Your task to perform on an android device: Open battery settings Image 0: 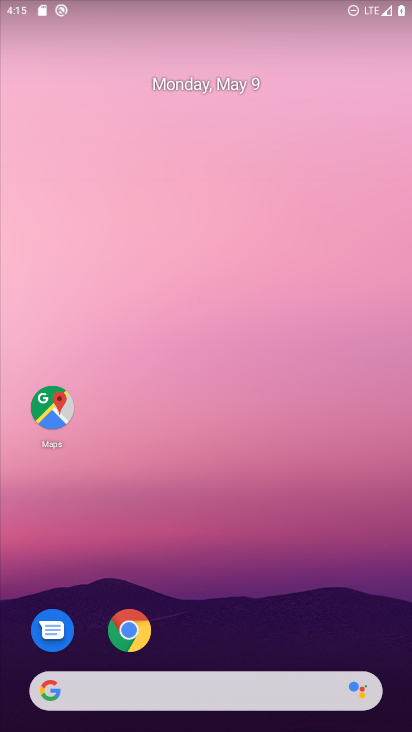
Step 0: click (370, 204)
Your task to perform on an android device: Open battery settings Image 1: 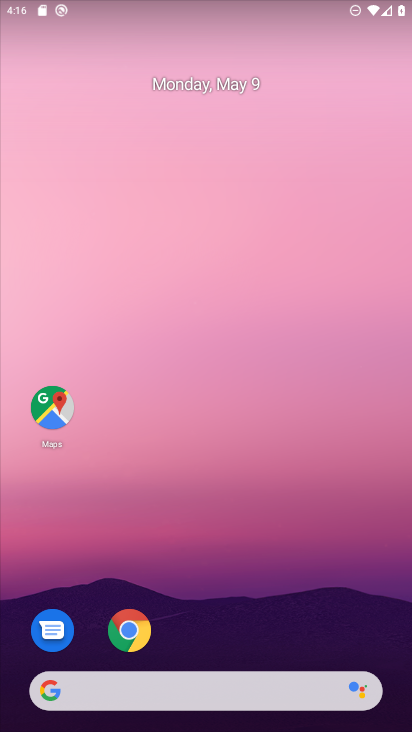
Step 1: click (276, 80)
Your task to perform on an android device: Open battery settings Image 2: 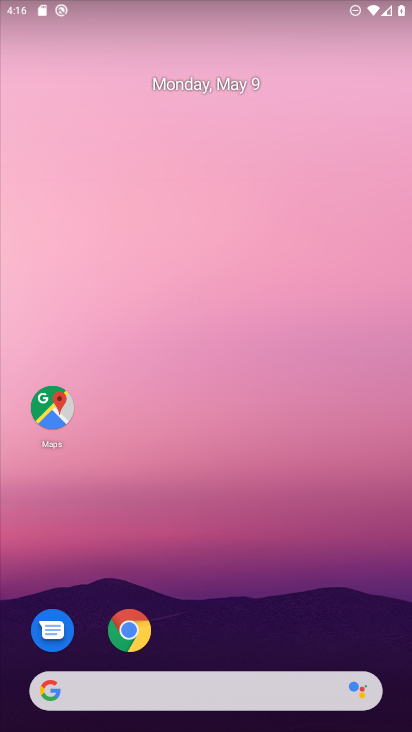
Step 2: drag from (236, 278) to (204, 56)
Your task to perform on an android device: Open battery settings Image 3: 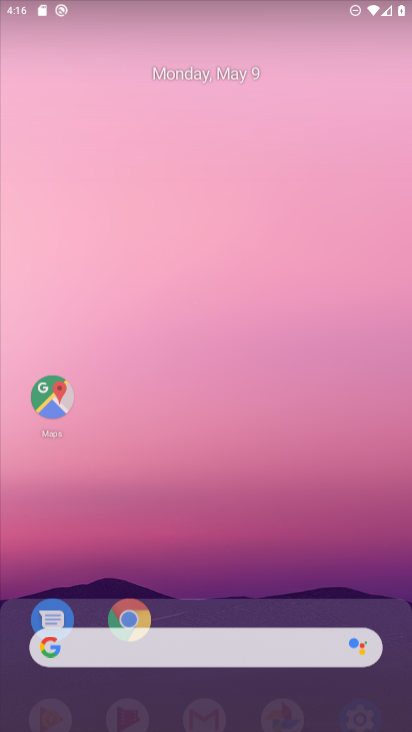
Step 3: drag from (276, 536) to (194, 114)
Your task to perform on an android device: Open battery settings Image 4: 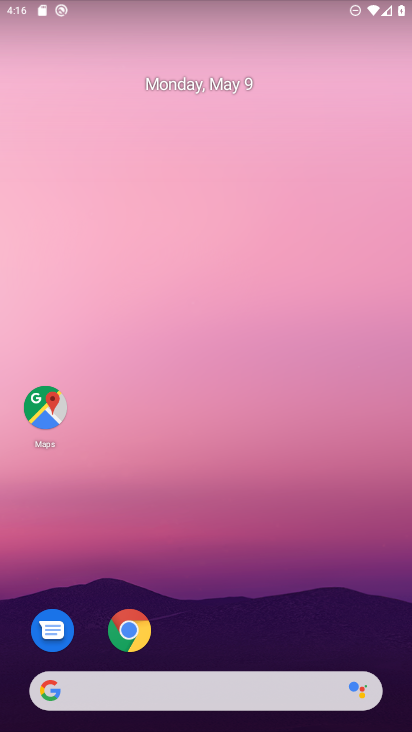
Step 4: drag from (259, 556) to (172, 11)
Your task to perform on an android device: Open battery settings Image 5: 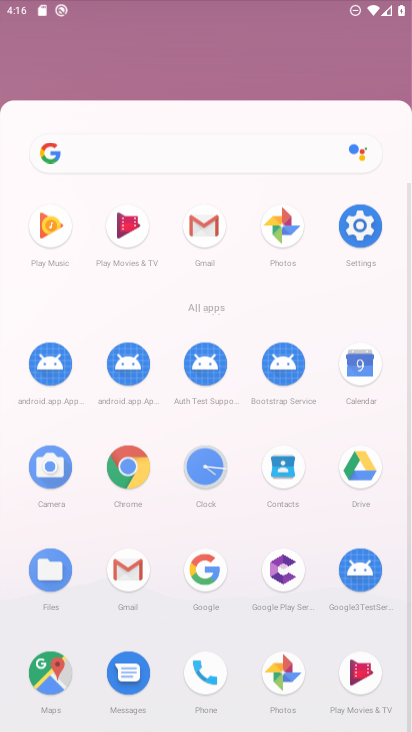
Step 5: drag from (213, 455) to (138, 140)
Your task to perform on an android device: Open battery settings Image 6: 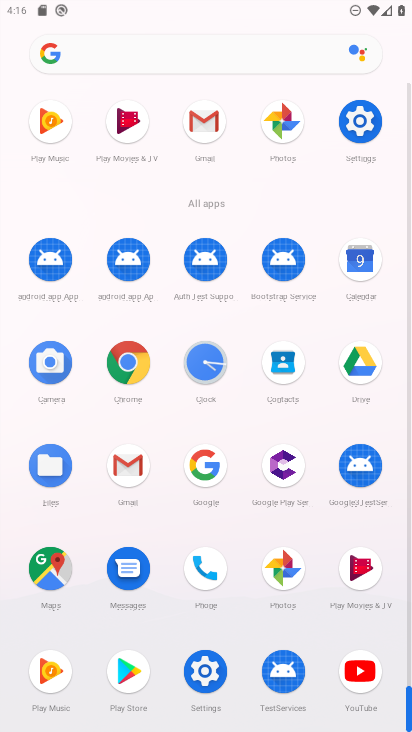
Step 6: click (365, 126)
Your task to perform on an android device: Open battery settings Image 7: 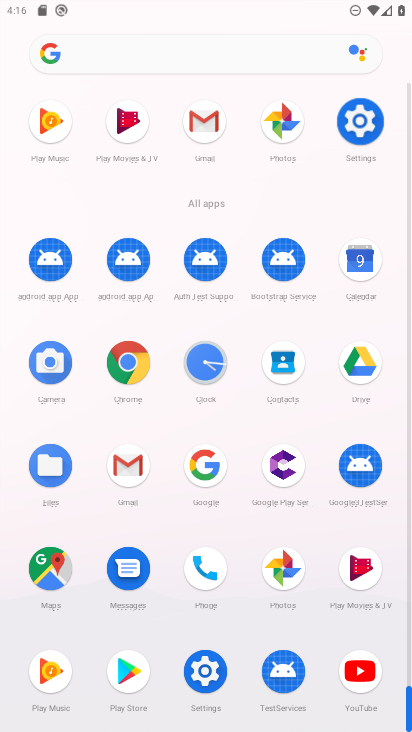
Step 7: click (365, 126)
Your task to perform on an android device: Open battery settings Image 8: 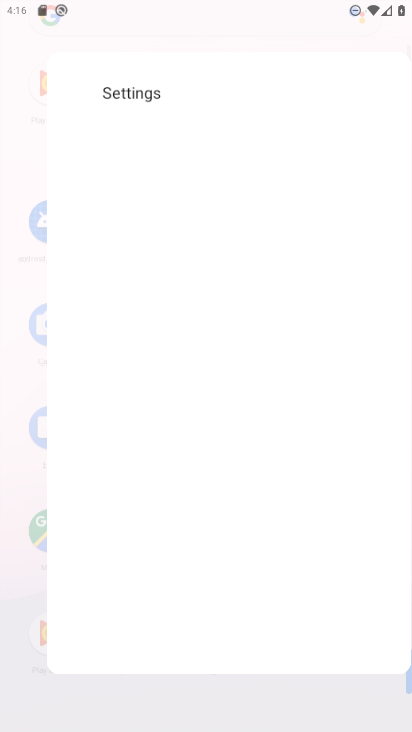
Step 8: click (365, 126)
Your task to perform on an android device: Open battery settings Image 9: 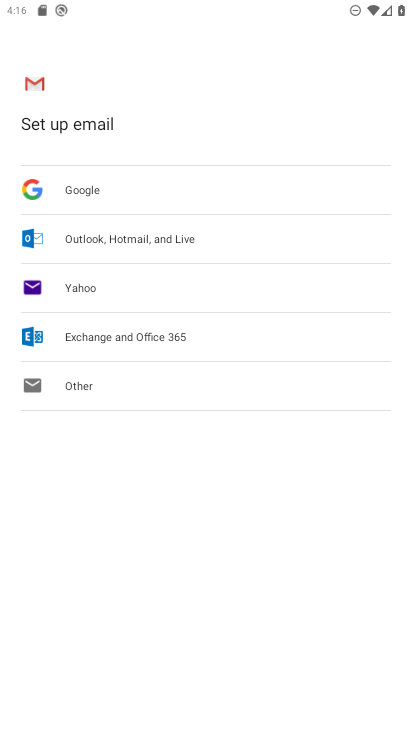
Step 9: press back button
Your task to perform on an android device: Open battery settings Image 10: 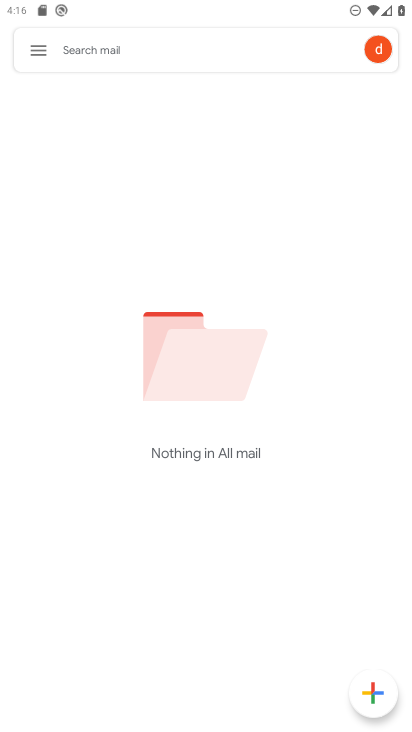
Step 10: press home button
Your task to perform on an android device: Open battery settings Image 11: 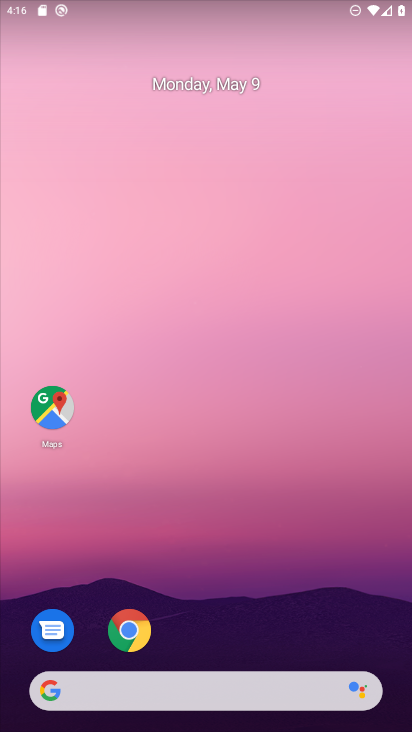
Step 11: drag from (260, 686) to (198, 11)
Your task to perform on an android device: Open battery settings Image 12: 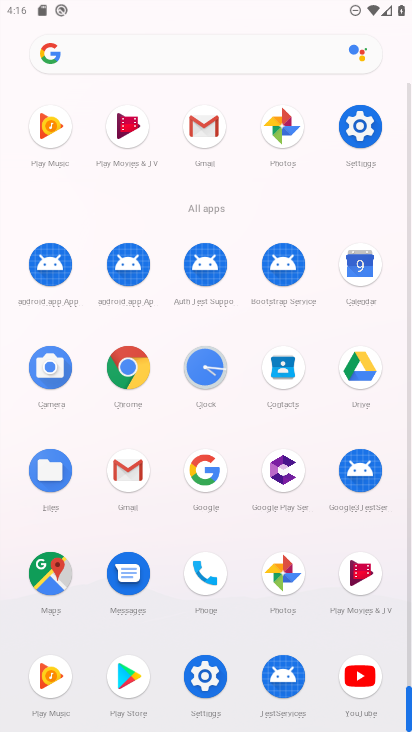
Step 12: click (354, 128)
Your task to perform on an android device: Open battery settings Image 13: 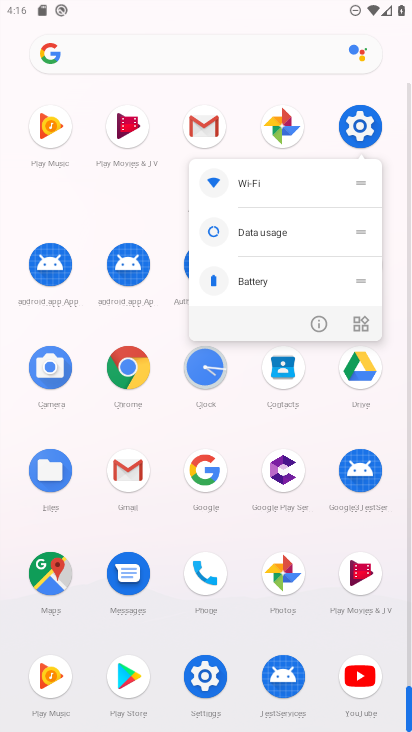
Step 13: click (354, 128)
Your task to perform on an android device: Open battery settings Image 14: 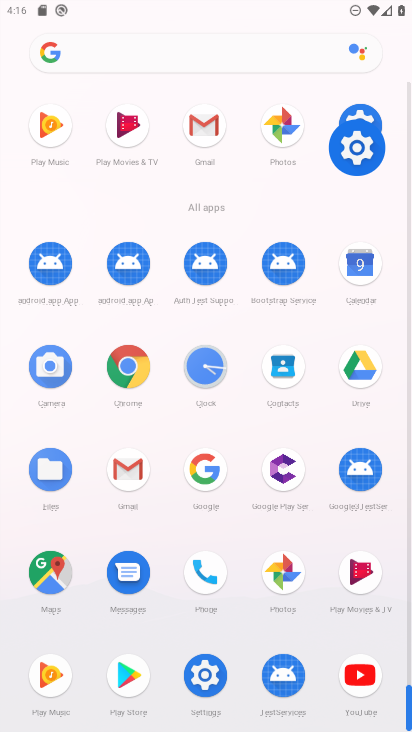
Step 14: click (353, 137)
Your task to perform on an android device: Open battery settings Image 15: 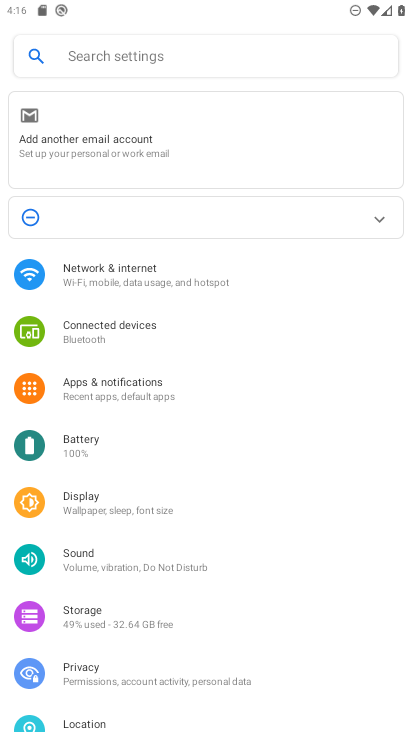
Step 15: click (353, 137)
Your task to perform on an android device: Open battery settings Image 16: 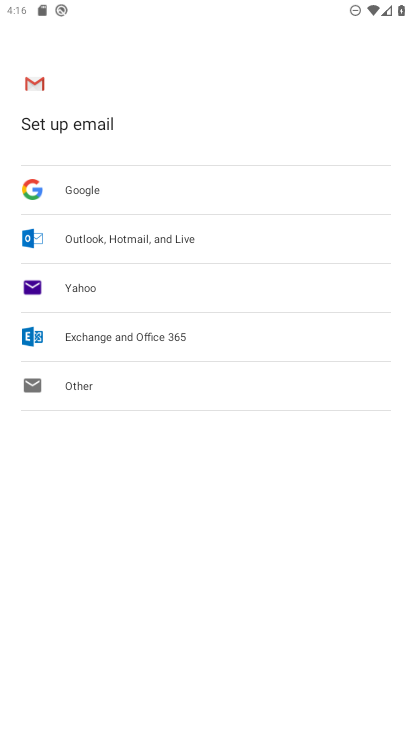
Step 16: press back button
Your task to perform on an android device: Open battery settings Image 17: 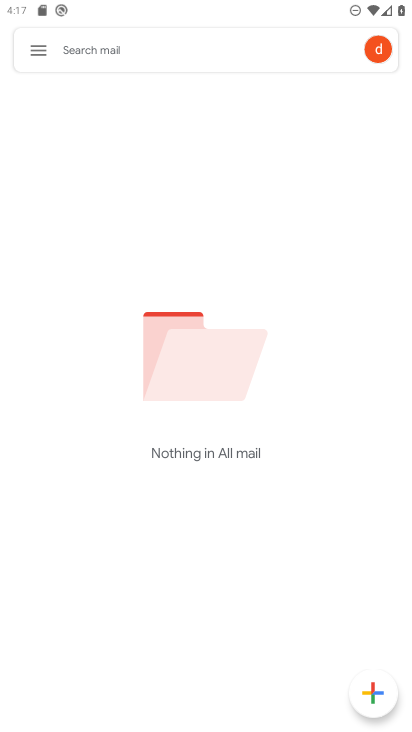
Step 17: press back button
Your task to perform on an android device: Open battery settings Image 18: 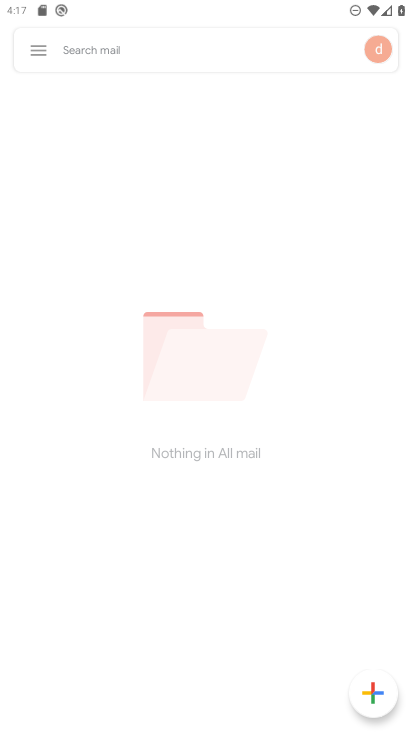
Step 18: press back button
Your task to perform on an android device: Open battery settings Image 19: 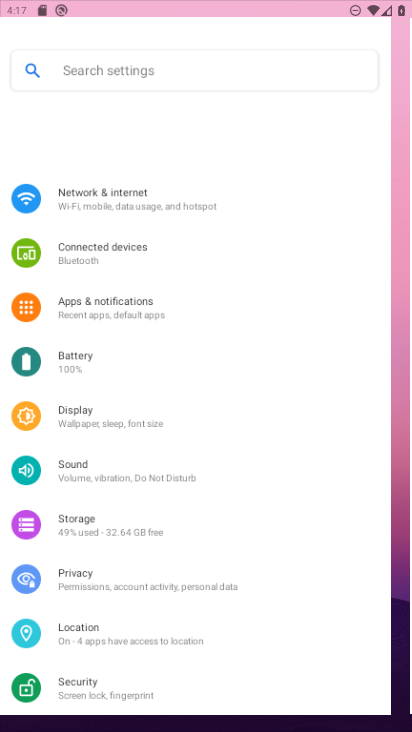
Step 19: press back button
Your task to perform on an android device: Open battery settings Image 20: 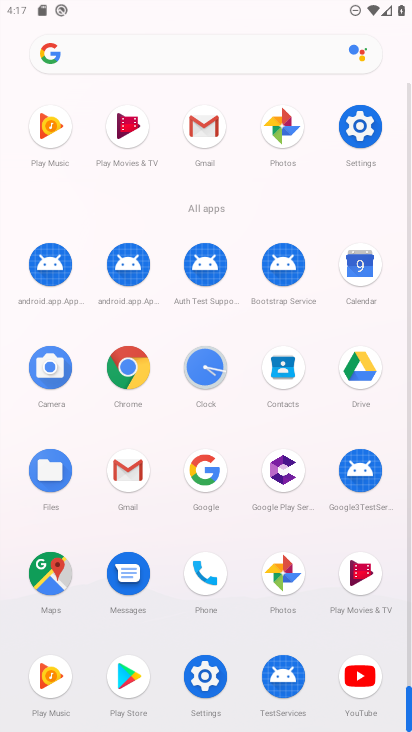
Step 20: click (370, 135)
Your task to perform on an android device: Open battery settings Image 21: 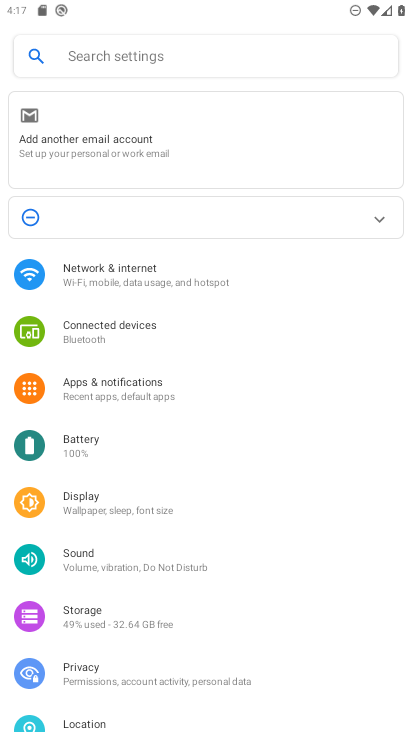
Step 21: click (83, 432)
Your task to perform on an android device: Open battery settings Image 22: 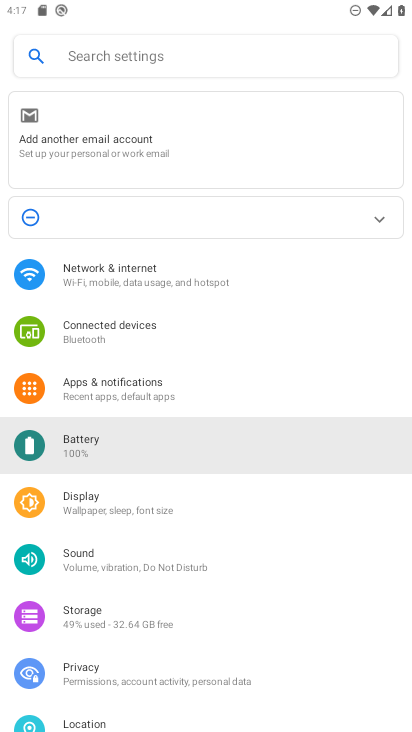
Step 22: click (83, 432)
Your task to perform on an android device: Open battery settings Image 23: 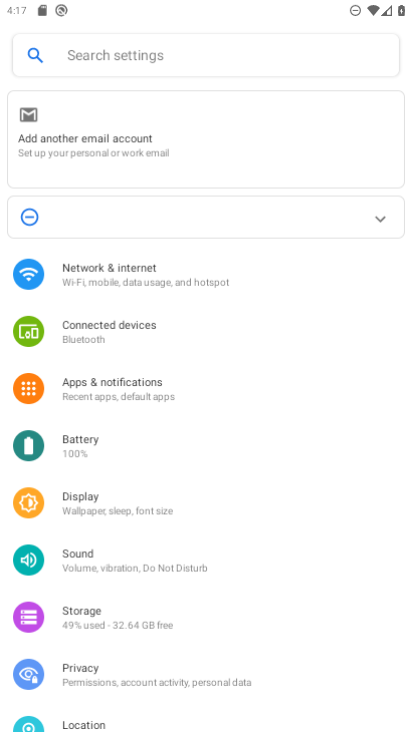
Step 23: click (83, 432)
Your task to perform on an android device: Open battery settings Image 24: 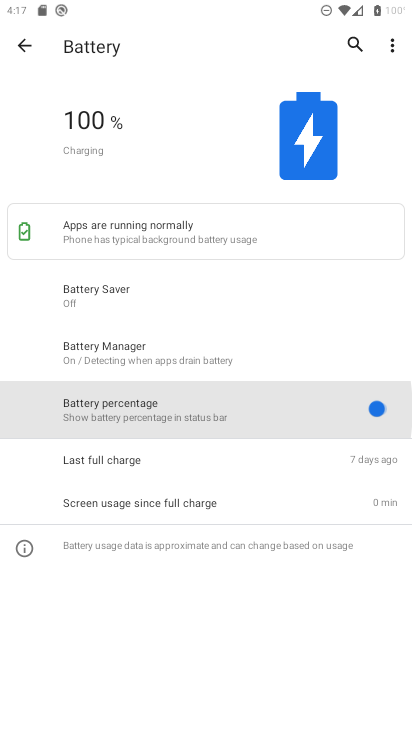
Step 24: click (83, 432)
Your task to perform on an android device: Open battery settings Image 25: 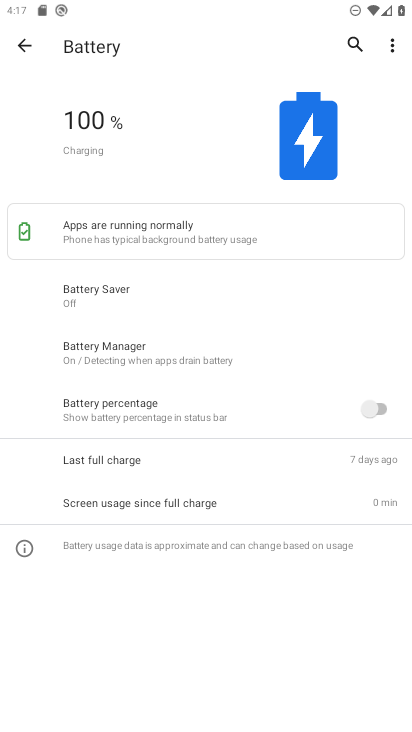
Step 25: task complete